Your task to perform on an android device: empty trash in google photos Image 0: 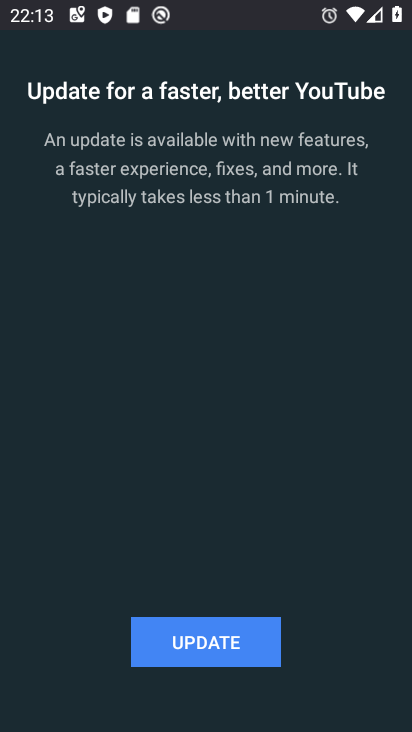
Step 0: press home button
Your task to perform on an android device: empty trash in google photos Image 1: 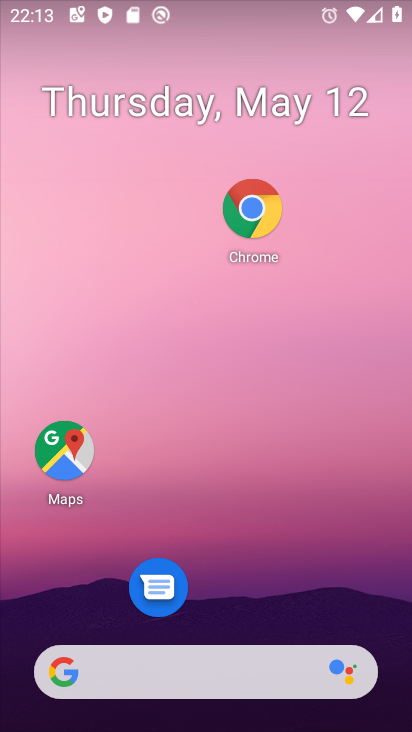
Step 1: drag from (199, 625) to (203, 264)
Your task to perform on an android device: empty trash in google photos Image 2: 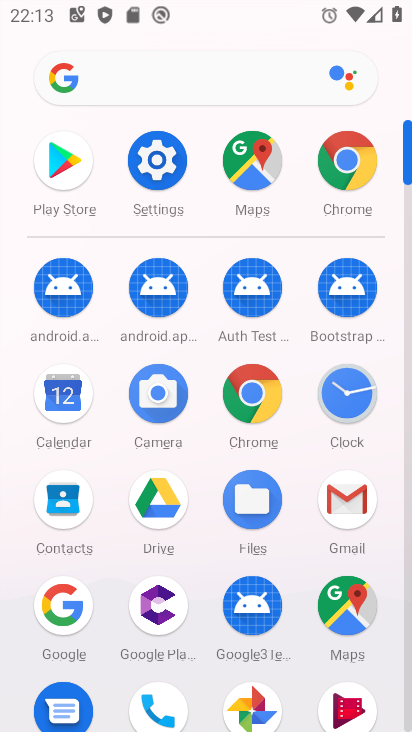
Step 2: click (239, 698)
Your task to perform on an android device: empty trash in google photos Image 3: 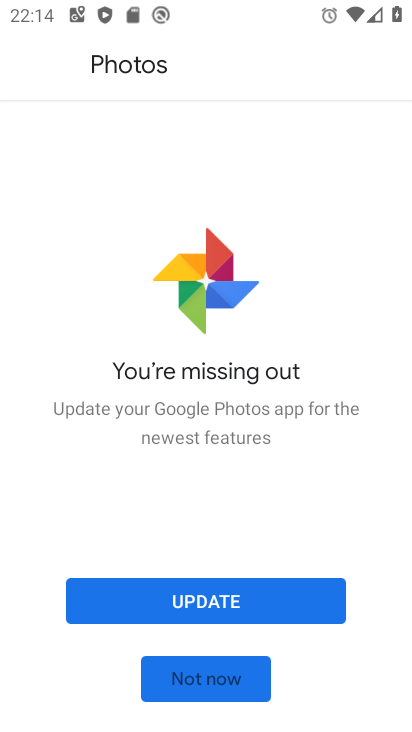
Step 3: click (204, 690)
Your task to perform on an android device: empty trash in google photos Image 4: 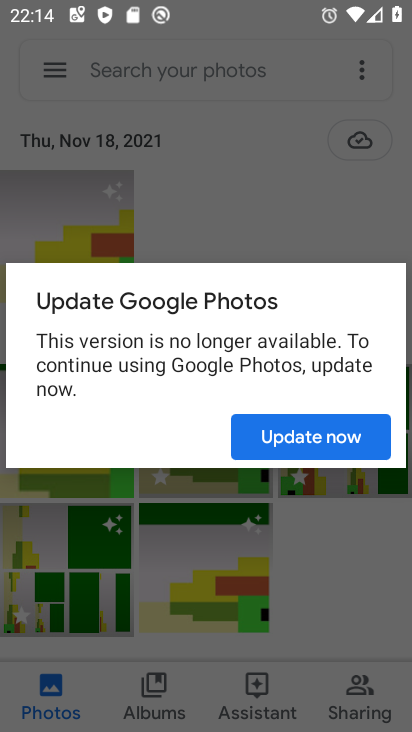
Step 4: click (295, 435)
Your task to perform on an android device: empty trash in google photos Image 5: 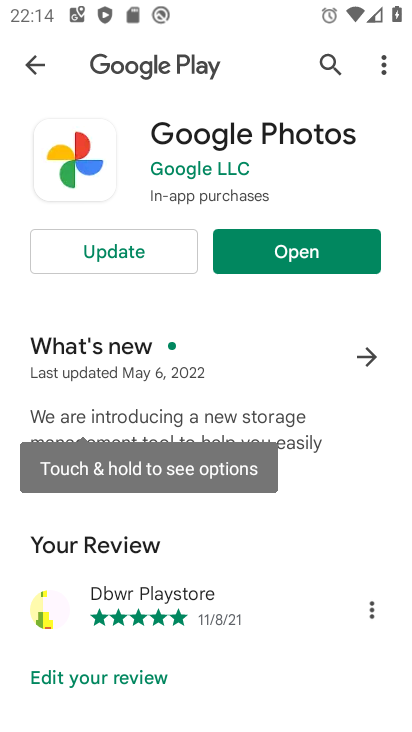
Step 5: press back button
Your task to perform on an android device: empty trash in google photos Image 6: 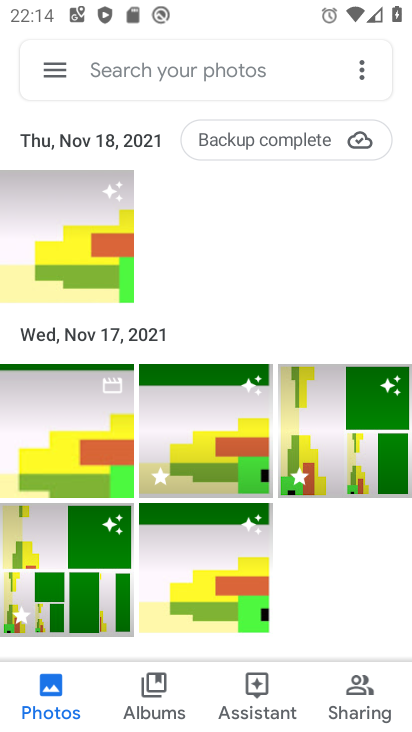
Step 6: click (44, 70)
Your task to perform on an android device: empty trash in google photos Image 7: 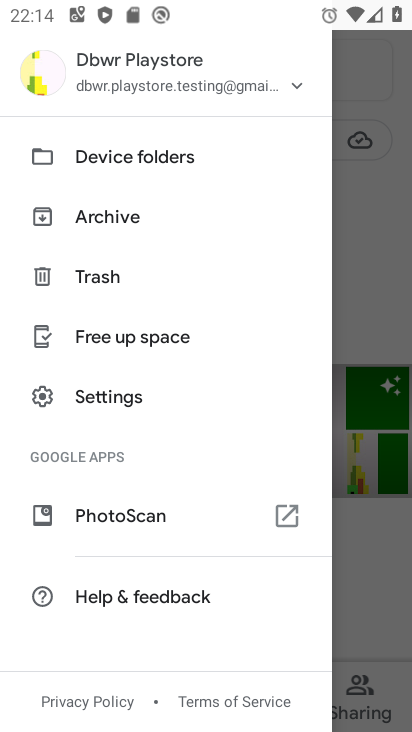
Step 7: click (98, 278)
Your task to perform on an android device: empty trash in google photos Image 8: 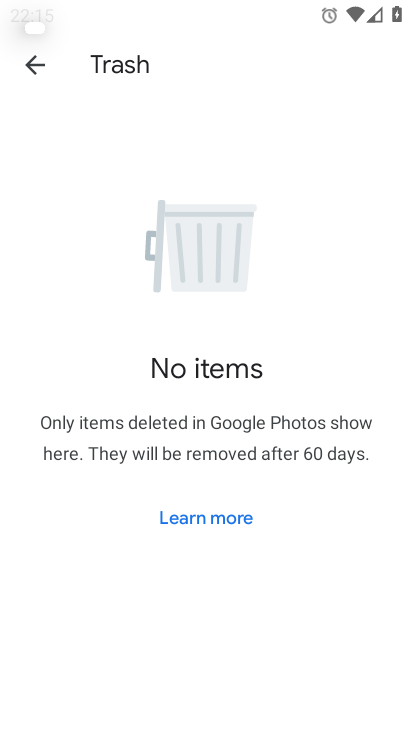
Step 8: task complete